Your task to perform on an android device: Search for vegetarian restaurants on Maps Image 0: 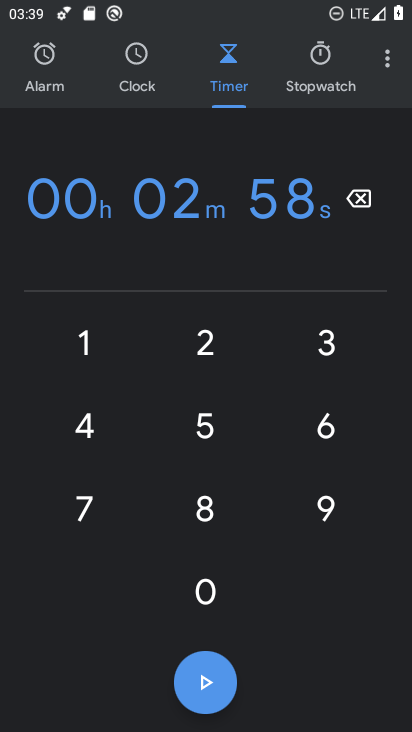
Step 0: press home button
Your task to perform on an android device: Search for vegetarian restaurants on Maps Image 1: 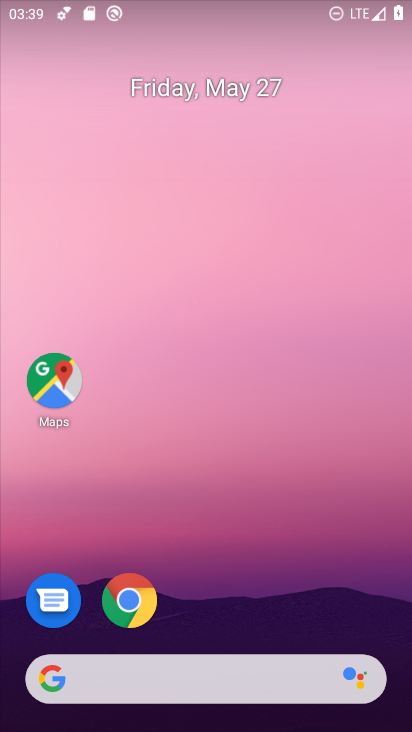
Step 1: drag from (212, 726) to (216, 161)
Your task to perform on an android device: Search for vegetarian restaurants on Maps Image 2: 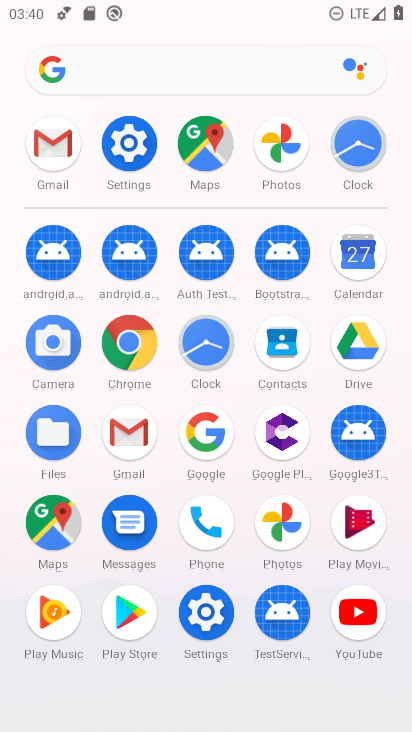
Step 2: click (37, 515)
Your task to perform on an android device: Search for vegetarian restaurants on Maps Image 3: 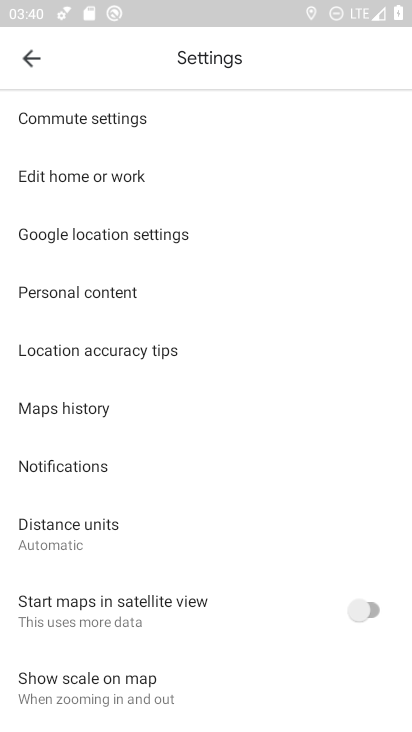
Step 3: click (29, 56)
Your task to perform on an android device: Search for vegetarian restaurants on Maps Image 4: 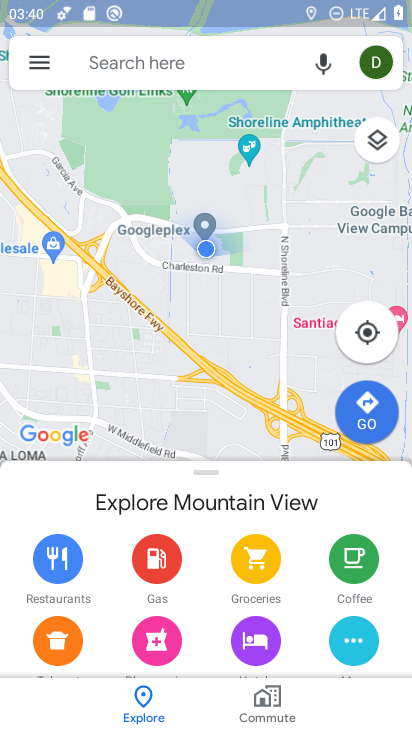
Step 4: click (156, 58)
Your task to perform on an android device: Search for vegetarian restaurants on Maps Image 5: 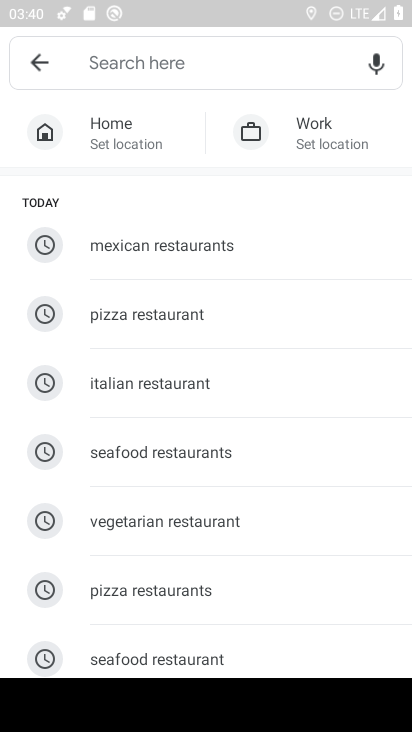
Step 5: type "vegetarian restaurants"
Your task to perform on an android device: Search for vegetarian restaurants on Maps Image 6: 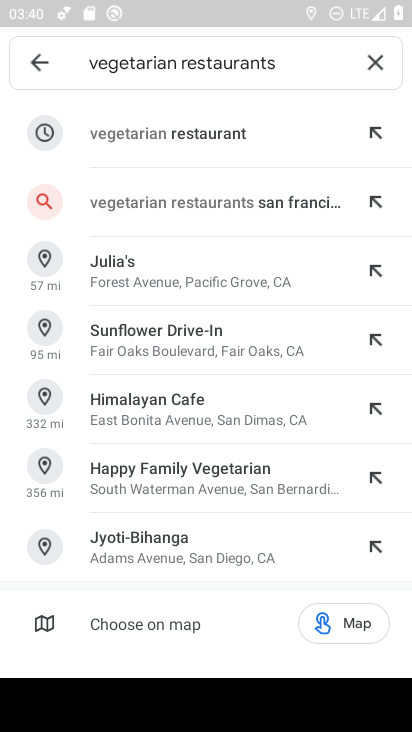
Step 6: click (147, 132)
Your task to perform on an android device: Search for vegetarian restaurants on Maps Image 7: 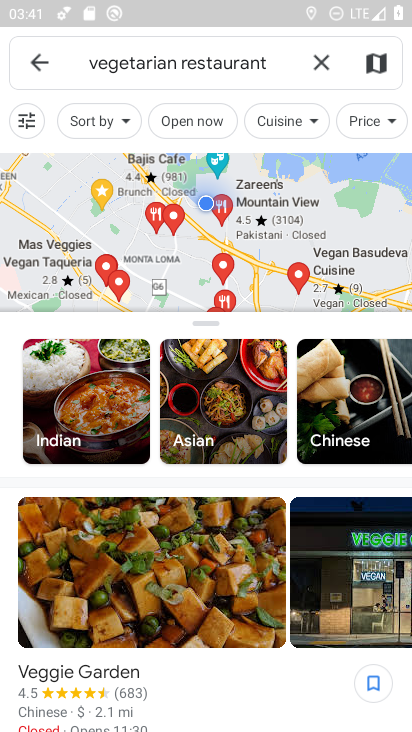
Step 7: task complete